Your task to perform on an android device: Open Maps and search for coffee Image 0: 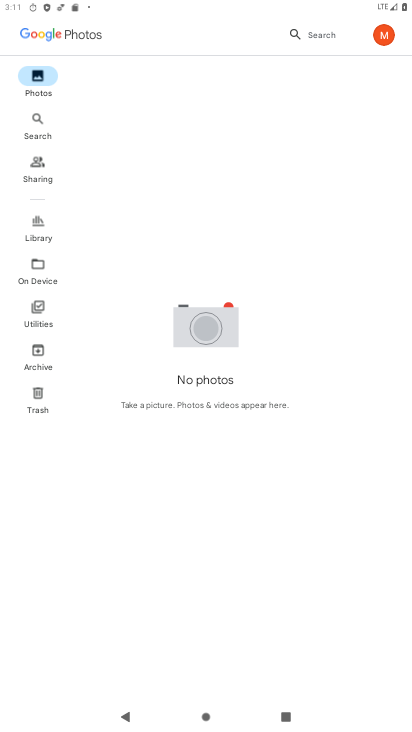
Step 0: press home button
Your task to perform on an android device: Open Maps and search for coffee Image 1: 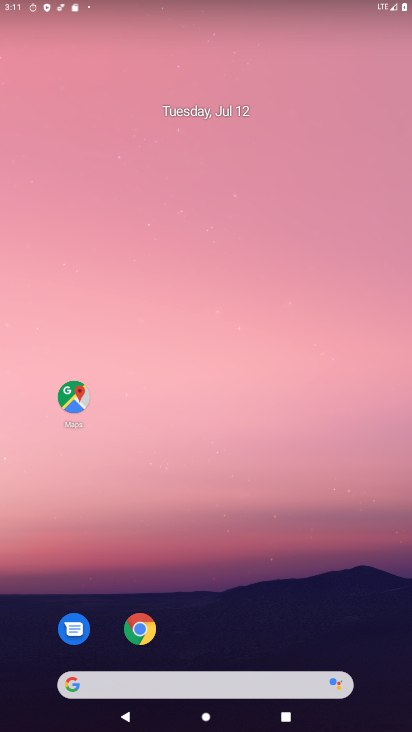
Step 1: drag from (207, 608) to (210, 111)
Your task to perform on an android device: Open Maps and search for coffee Image 2: 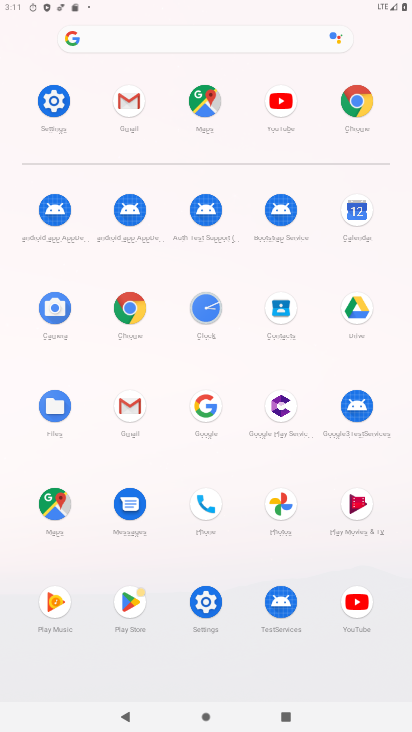
Step 2: click (50, 512)
Your task to perform on an android device: Open Maps and search for coffee Image 3: 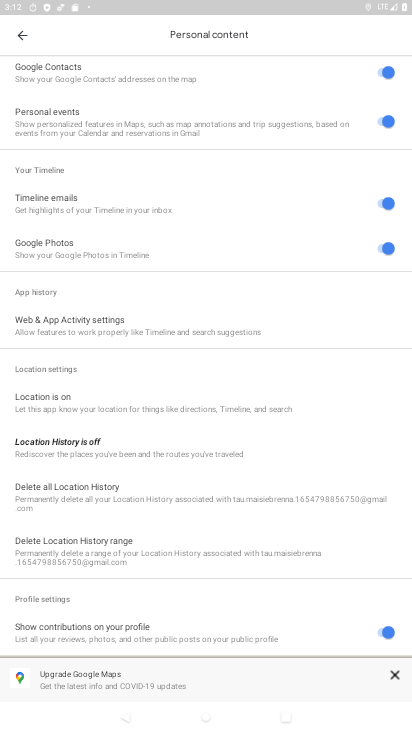
Step 3: click (28, 32)
Your task to perform on an android device: Open Maps and search for coffee Image 4: 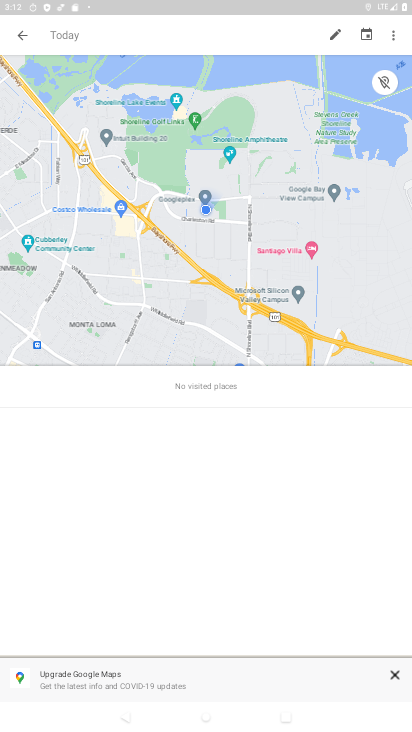
Step 4: click (23, 27)
Your task to perform on an android device: Open Maps and search for coffee Image 5: 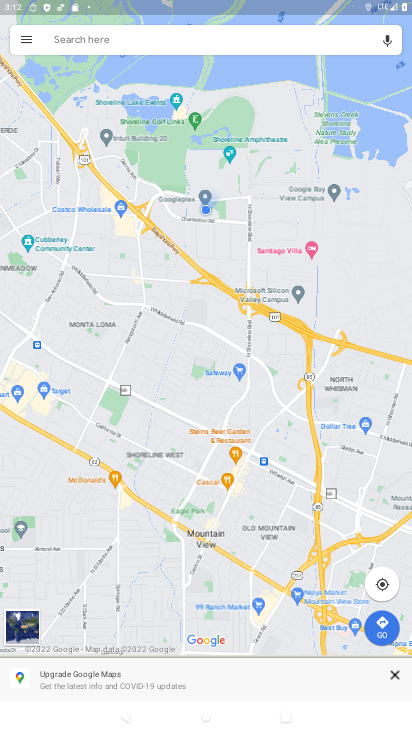
Step 5: click (89, 35)
Your task to perform on an android device: Open Maps and search for coffee Image 6: 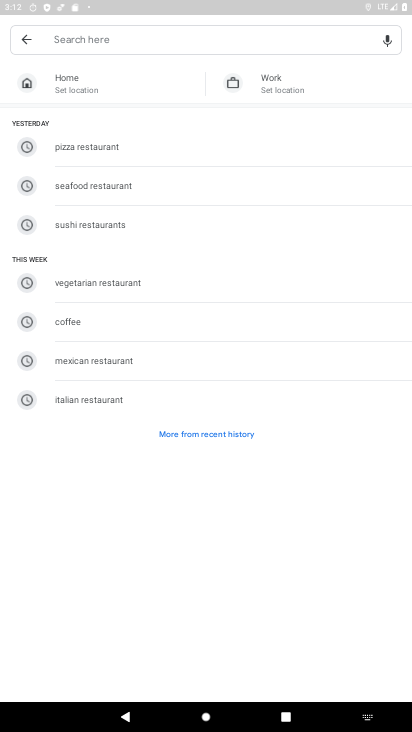
Step 6: type "coffee"
Your task to perform on an android device: Open Maps and search for coffee Image 7: 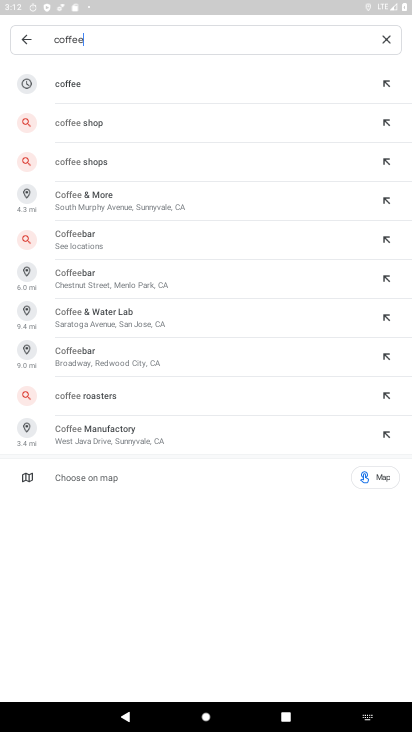
Step 7: click (99, 81)
Your task to perform on an android device: Open Maps and search for coffee Image 8: 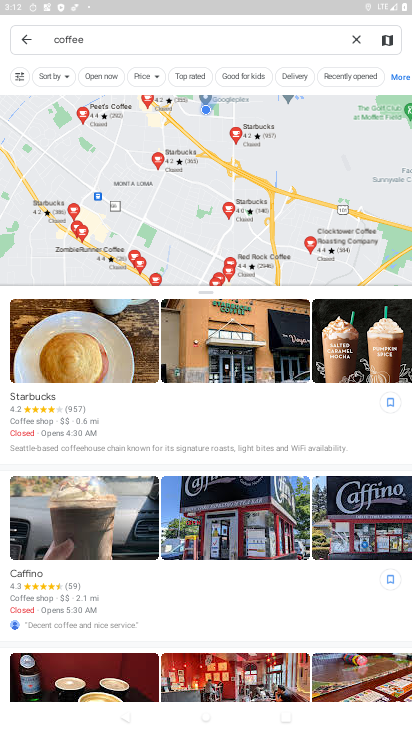
Step 8: task complete